Your task to perform on an android device: choose inbox layout in the gmail app Image 0: 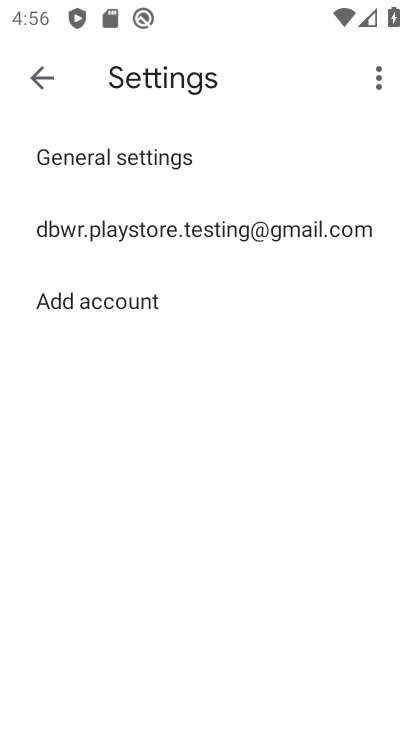
Step 0: press home button
Your task to perform on an android device: choose inbox layout in the gmail app Image 1: 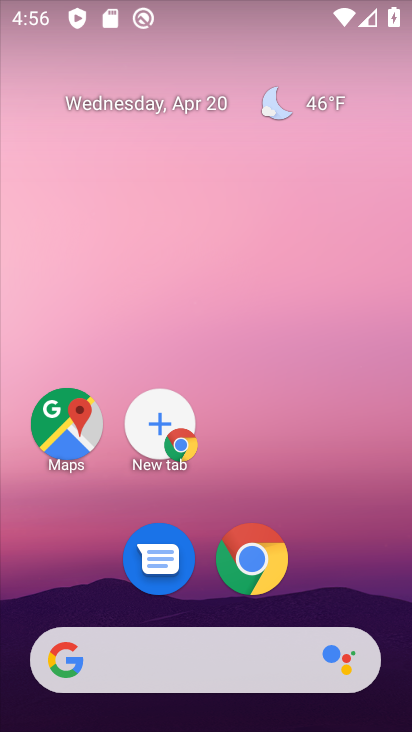
Step 1: drag from (355, 589) to (243, 111)
Your task to perform on an android device: choose inbox layout in the gmail app Image 2: 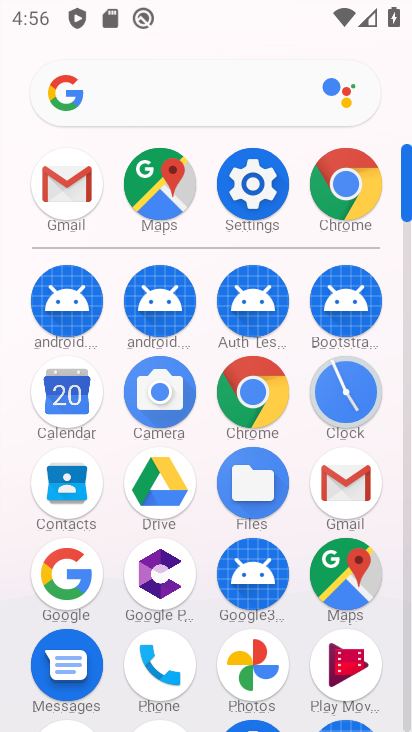
Step 2: click (337, 478)
Your task to perform on an android device: choose inbox layout in the gmail app Image 3: 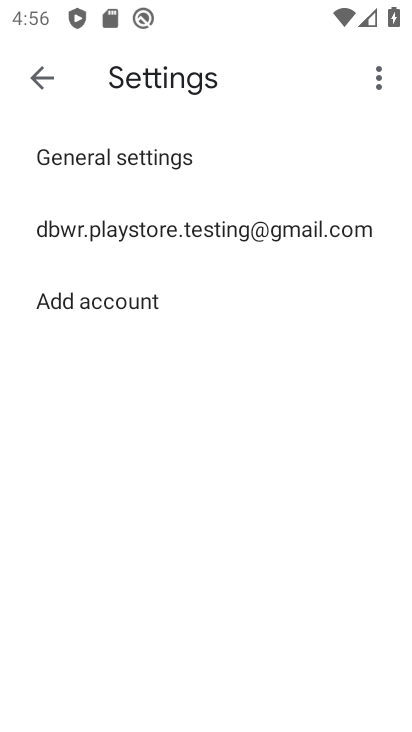
Step 3: click (47, 93)
Your task to perform on an android device: choose inbox layout in the gmail app Image 4: 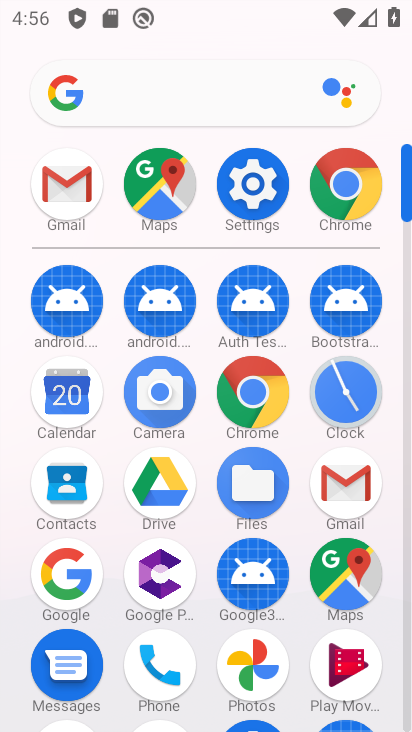
Step 4: click (89, 213)
Your task to perform on an android device: choose inbox layout in the gmail app Image 5: 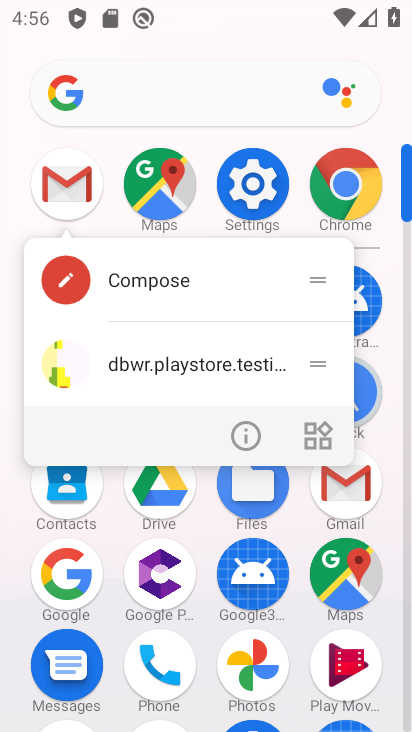
Step 5: click (67, 202)
Your task to perform on an android device: choose inbox layout in the gmail app Image 6: 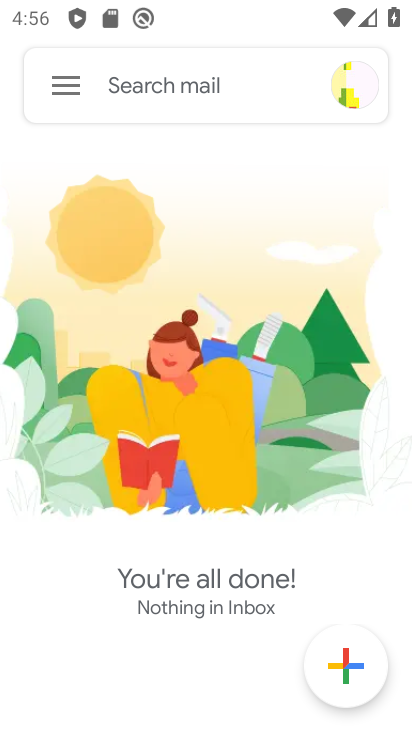
Step 6: click (68, 97)
Your task to perform on an android device: choose inbox layout in the gmail app Image 7: 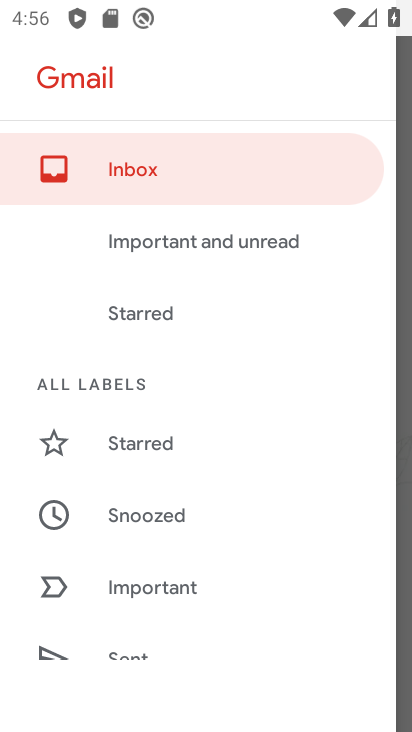
Step 7: click (197, 186)
Your task to perform on an android device: choose inbox layout in the gmail app Image 8: 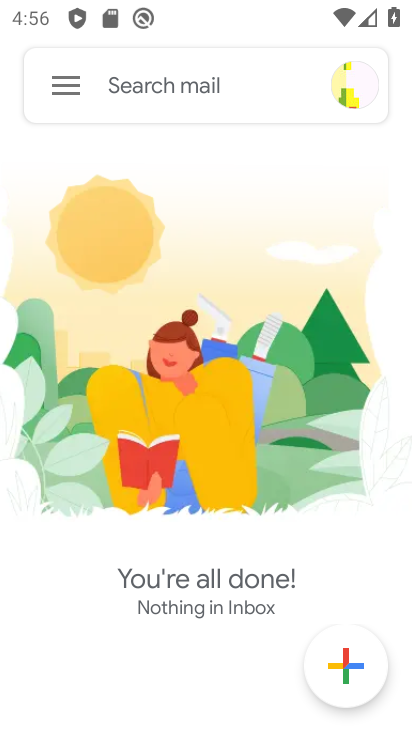
Step 8: task complete